Your task to perform on an android device: Search for Italian restaurants on Maps Image 0: 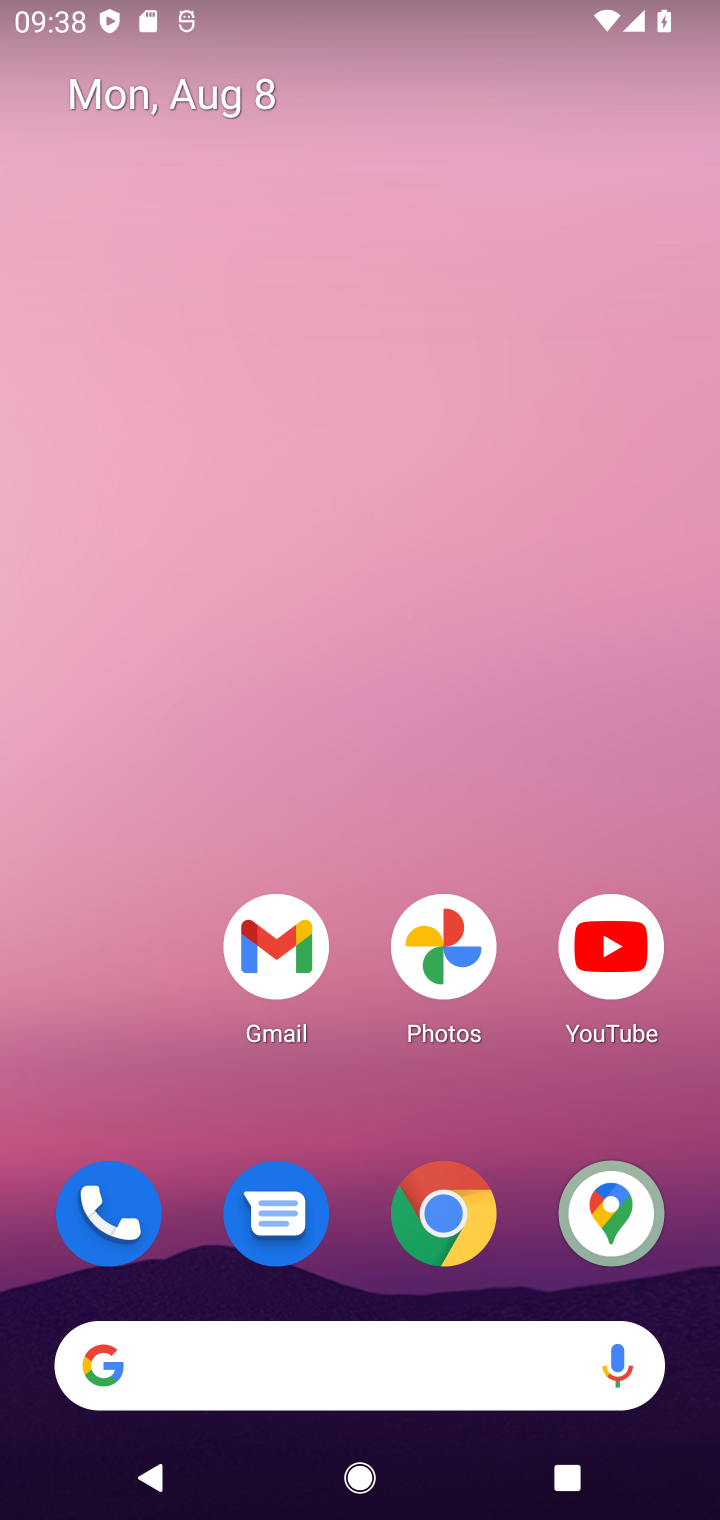
Step 0: drag from (348, 1102) to (318, 354)
Your task to perform on an android device: Search for Italian restaurants on Maps Image 1: 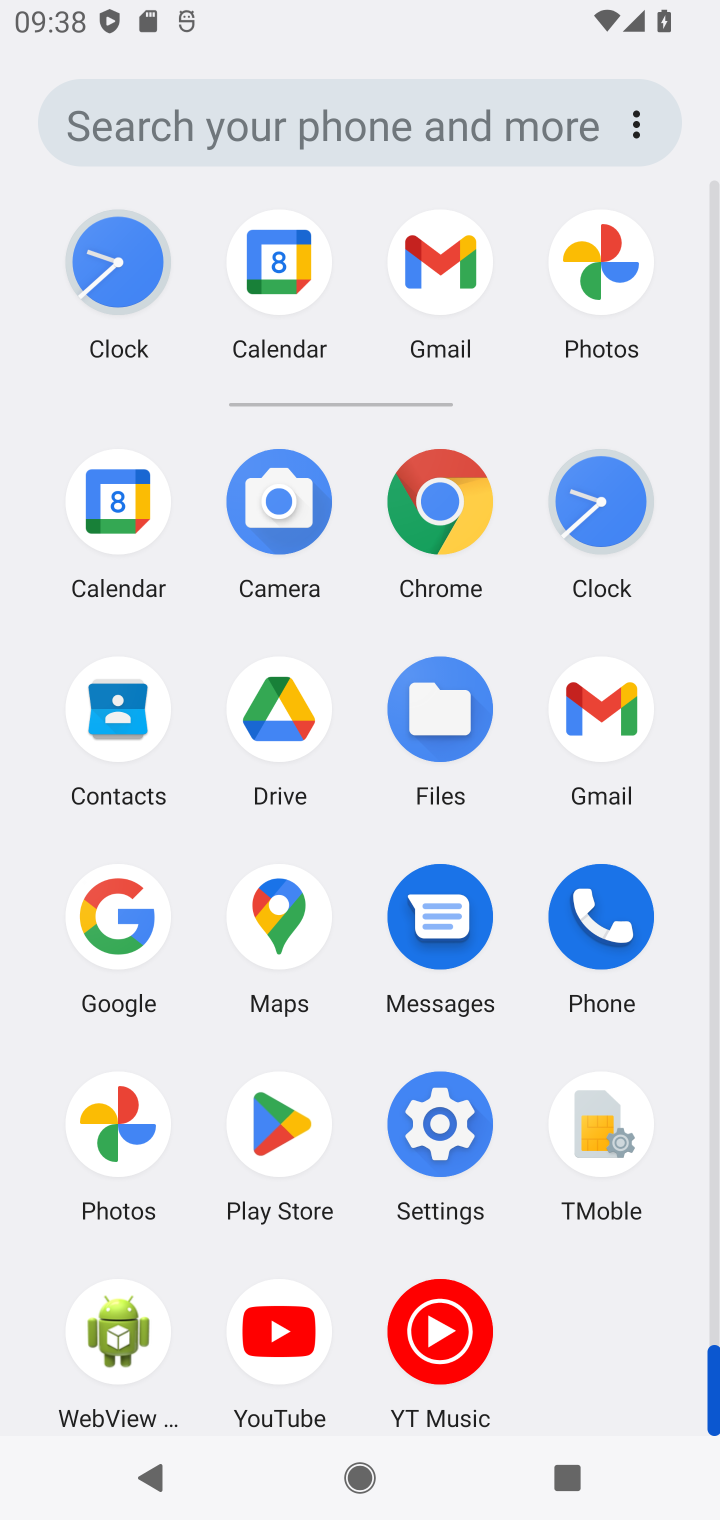
Step 1: click (300, 942)
Your task to perform on an android device: Search for Italian restaurants on Maps Image 2: 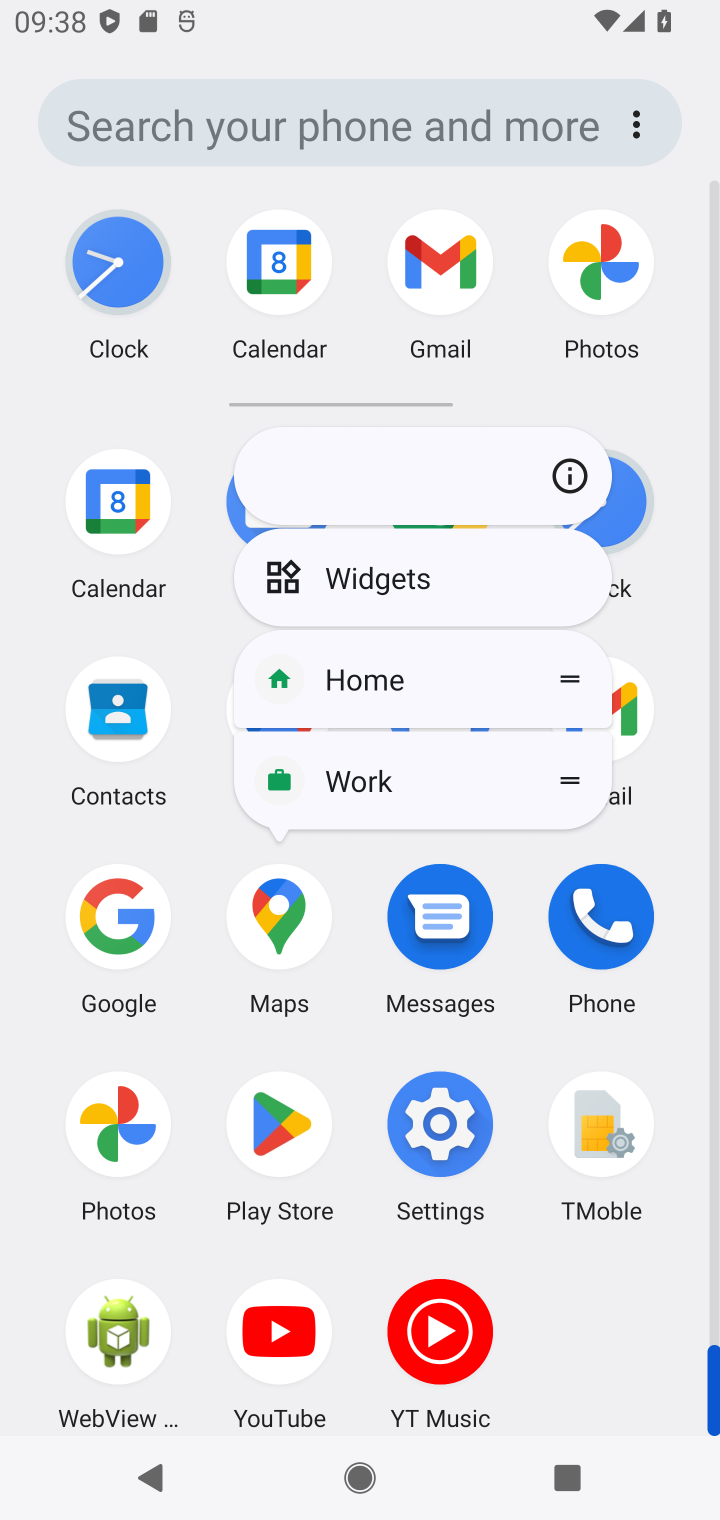
Step 2: click (304, 952)
Your task to perform on an android device: Search for Italian restaurants on Maps Image 3: 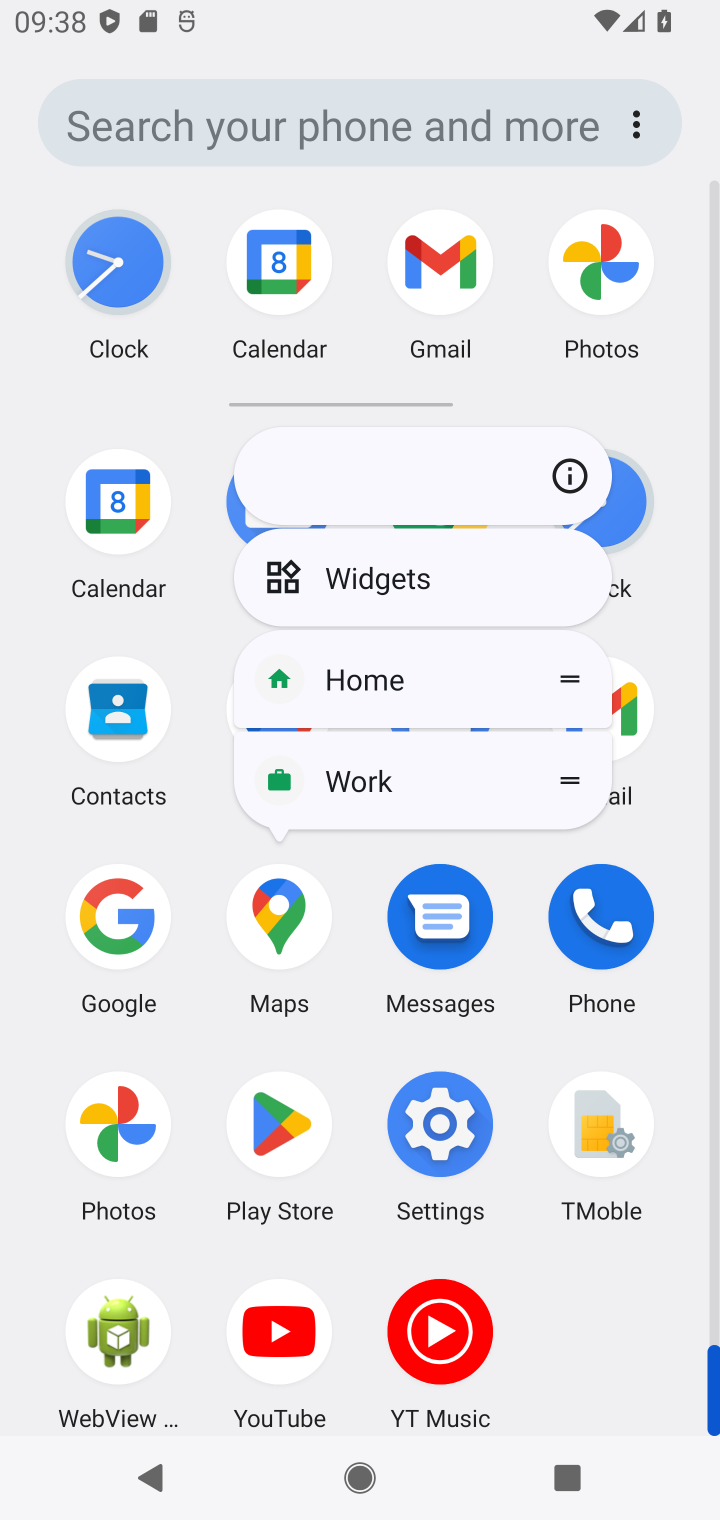
Step 3: click (304, 952)
Your task to perform on an android device: Search for Italian restaurants on Maps Image 4: 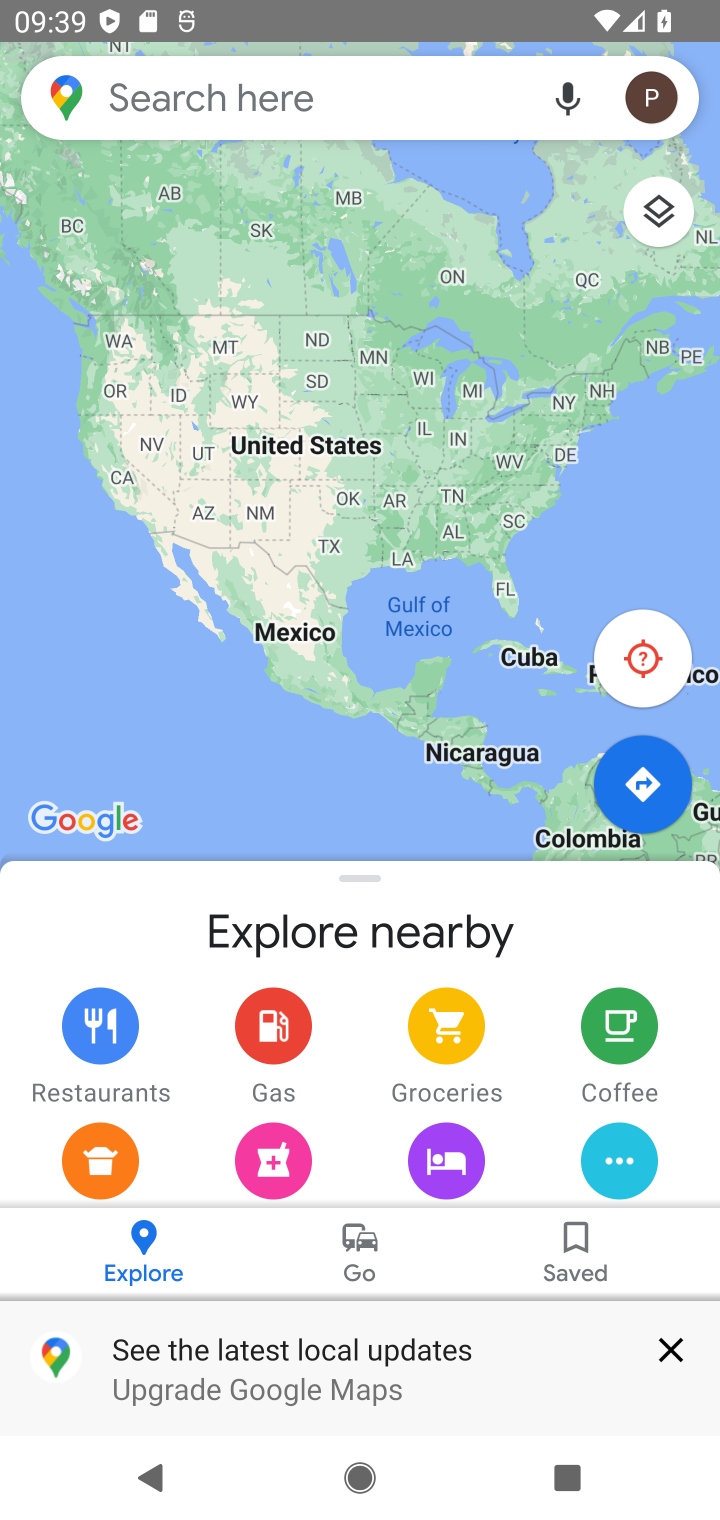
Step 4: click (237, 127)
Your task to perform on an android device: Search for Italian restaurants on Maps Image 5: 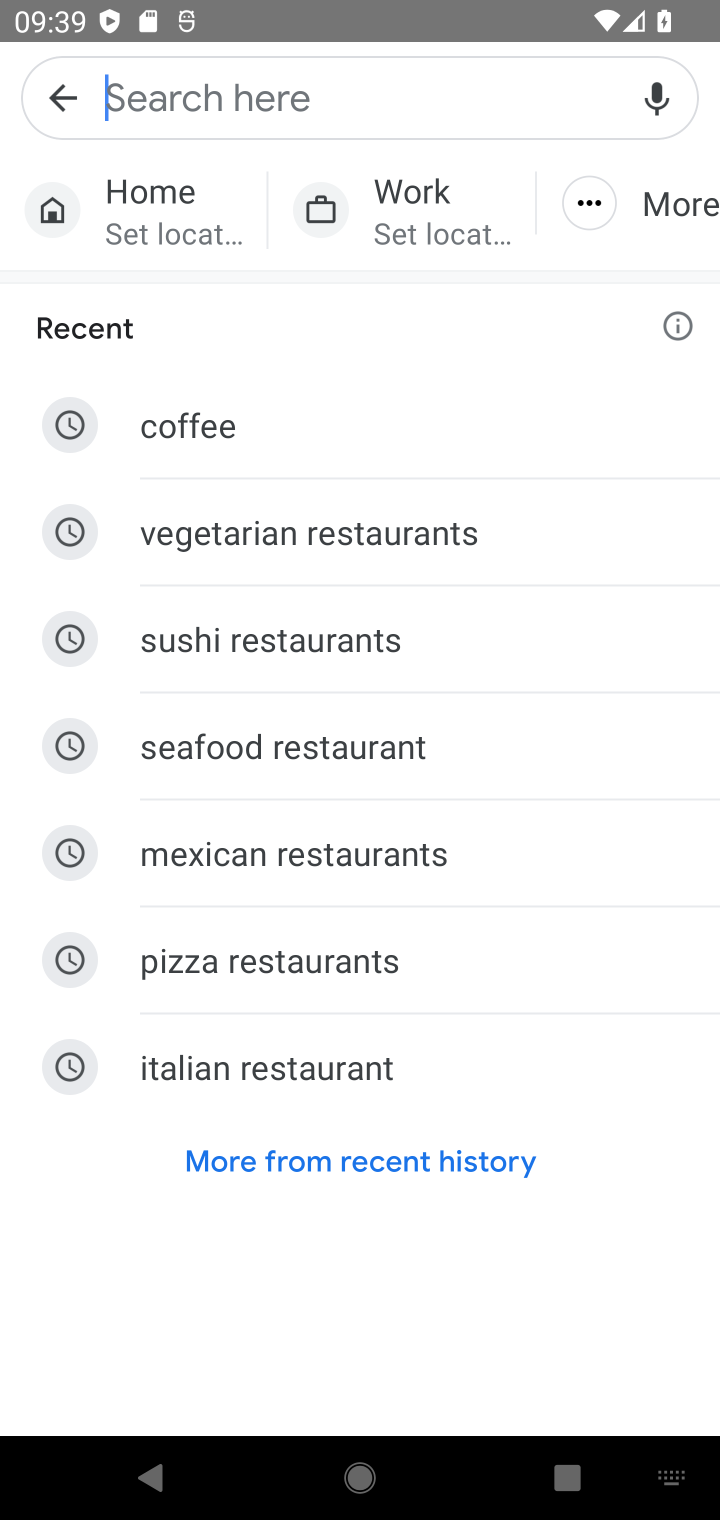
Step 5: click (342, 1066)
Your task to perform on an android device: Search for Italian restaurants on Maps Image 6: 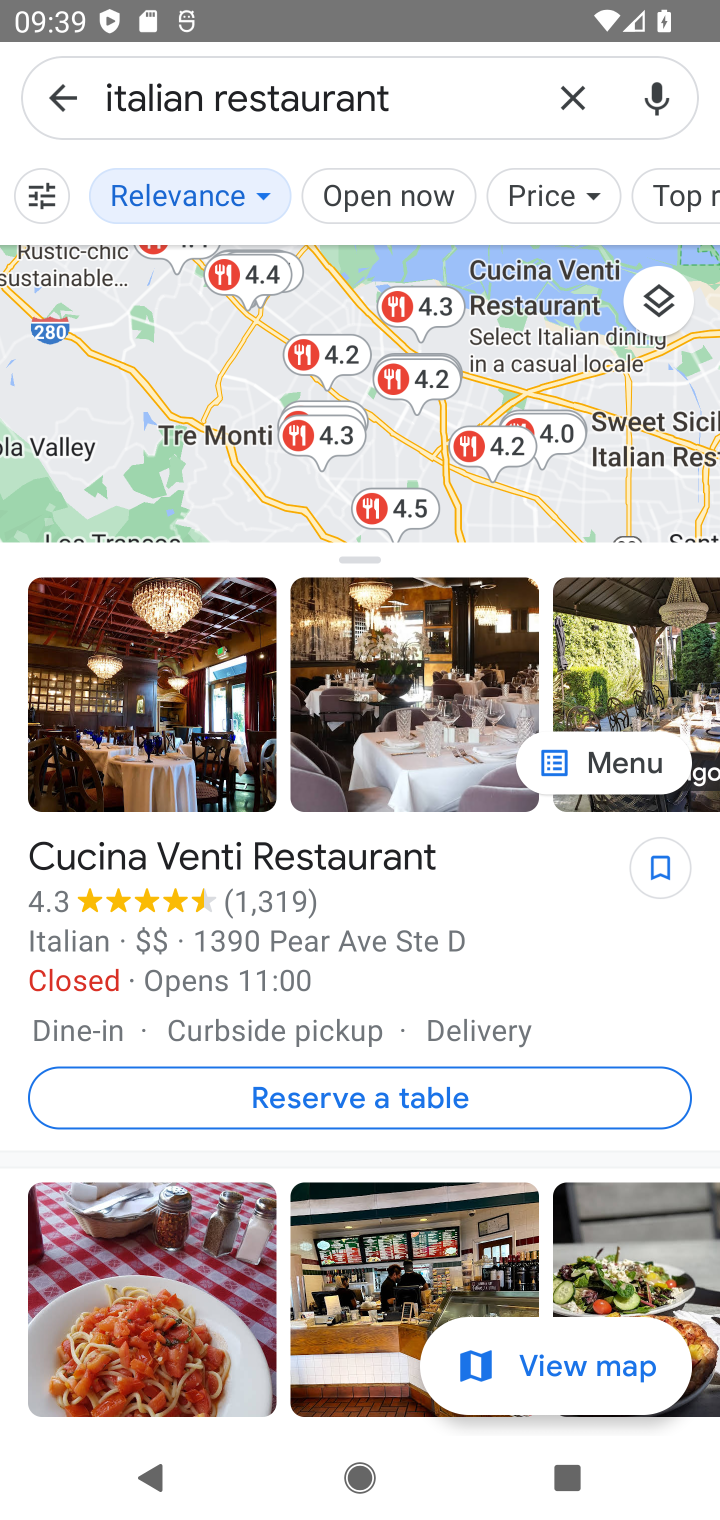
Step 6: task complete